Your task to perform on an android device: Open battery settings Image 0: 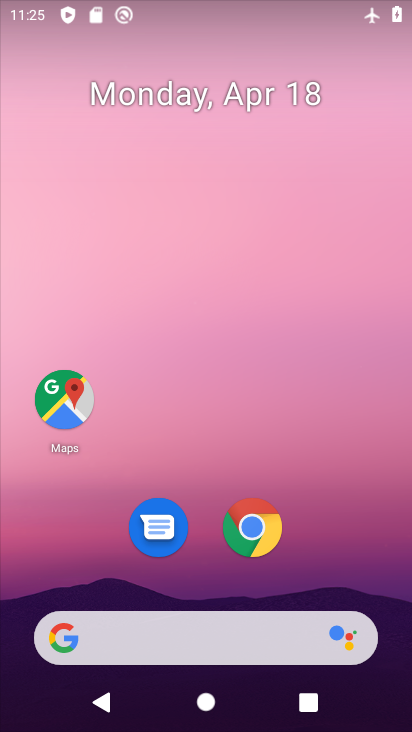
Step 0: drag from (325, 561) to (320, 19)
Your task to perform on an android device: Open battery settings Image 1: 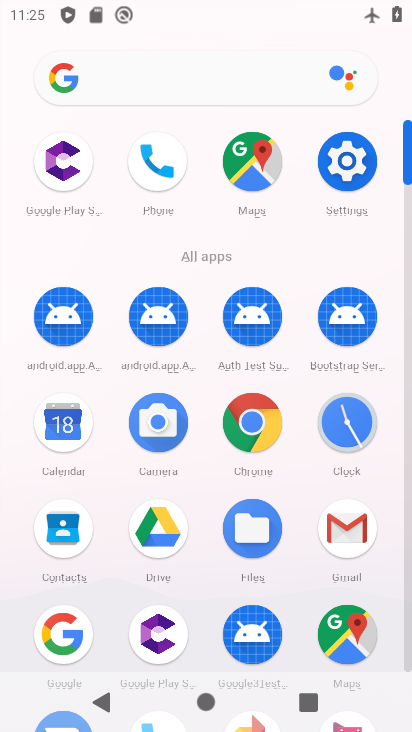
Step 1: click (353, 151)
Your task to perform on an android device: Open battery settings Image 2: 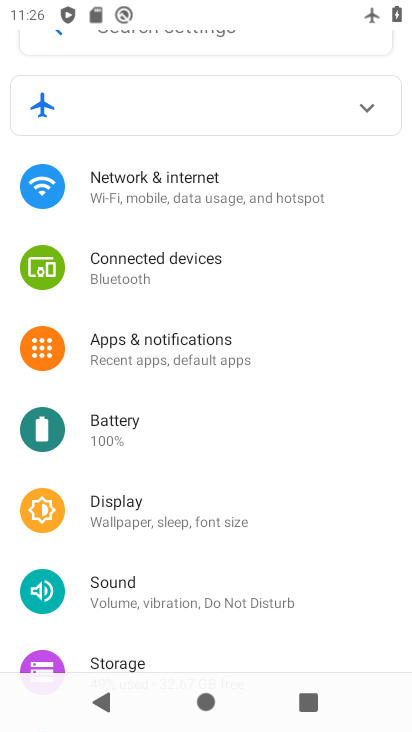
Step 2: click (205, 435)
Your task to perform on an android device: Open battery settings Image 3: 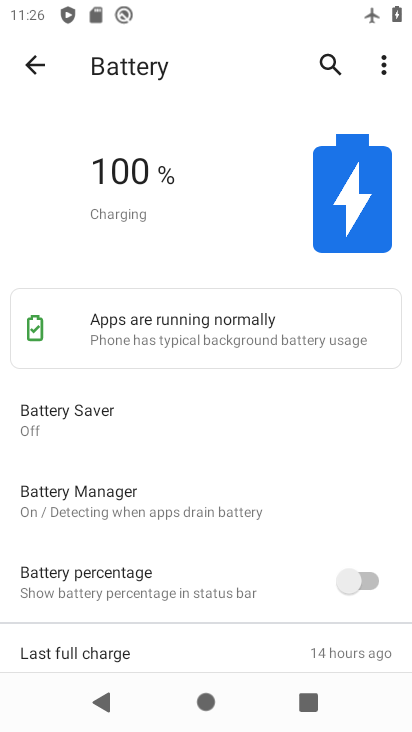
Step 3: task complete